Your task to perform on an android device: turn on notifications settings in the gmail app Image 0: 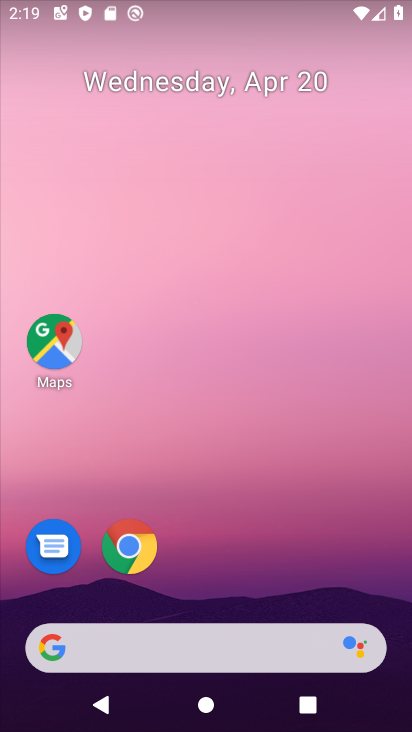
Step 0: drag from (259, 656) to (183, 150)
Your task to perform on an android device: turn on notifications settings in the gmail app Image 1: 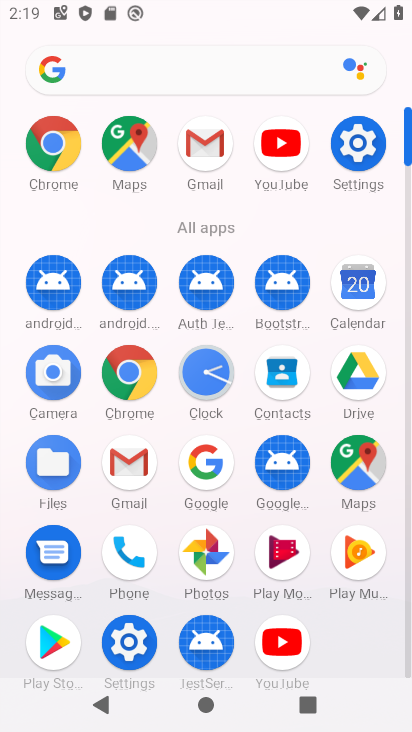
Step 1: click (130, 463)
Your task to perform on an android device: turn on notifications settings in the gmail app Image 2: 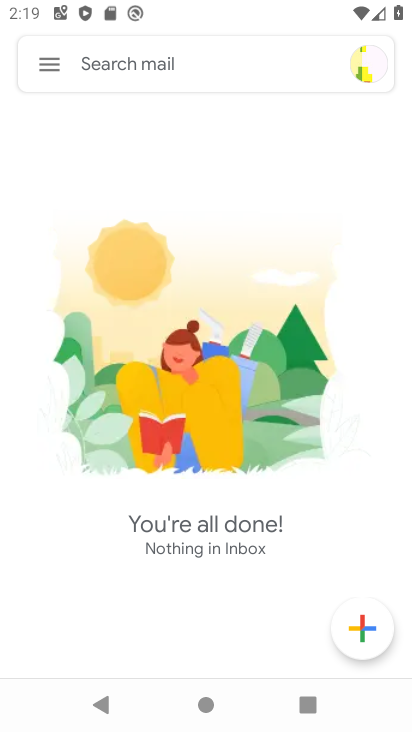
Step 2: click (53, 79)
Your task to perform on an android device: turn on notifications settings in the gmail app Image 3: 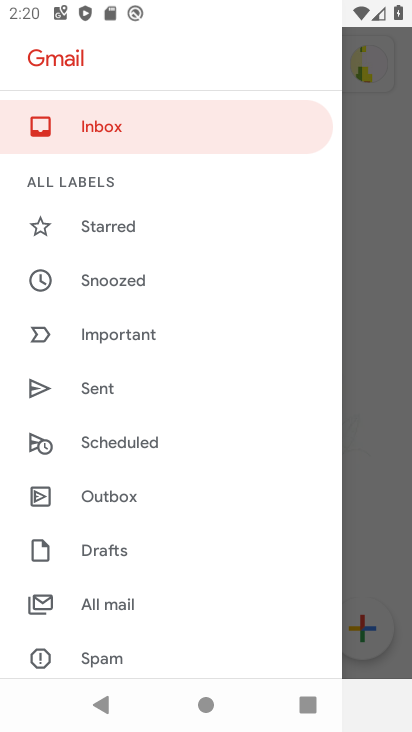
Step 3: drag from (121, 484) to (198, 165)
Your task to perform on an android device: turn on notifications settings in the gmail app Image 4: 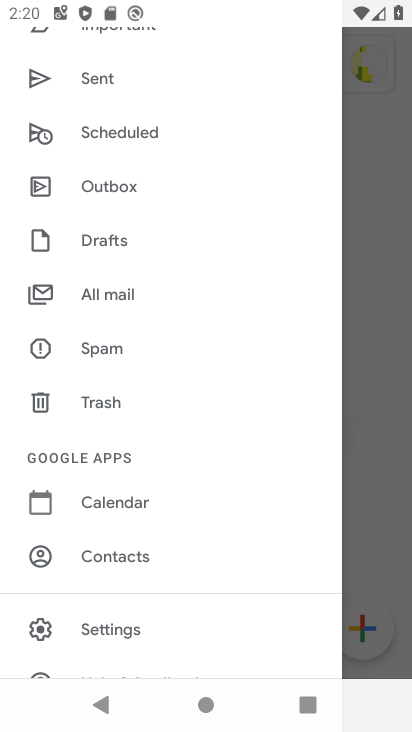
Step 4: click (107, 619)
Your task to perform on an android device: turn on notifications settings in the gmail app Image 5: 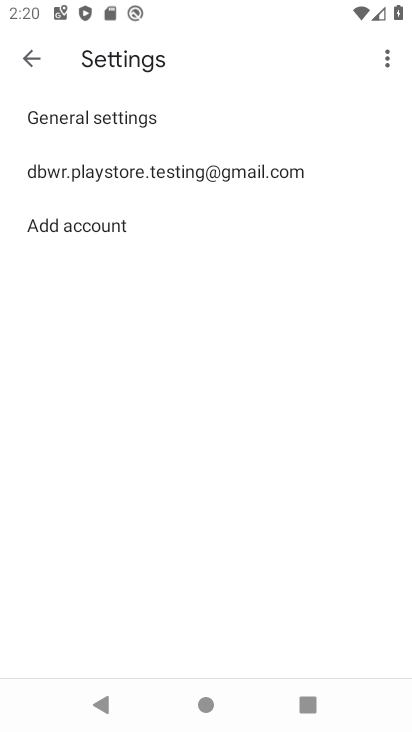
Step 5: click (145, 157)
Your task to perform on an android device: turn on notifications settings in the gmail app Image 6: 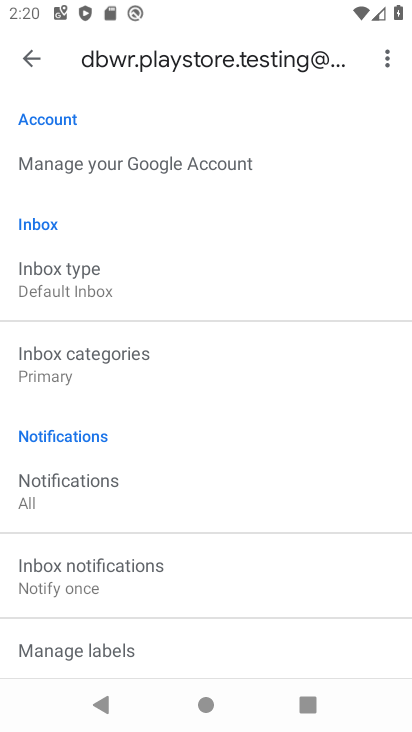
Step 6: click (99, 472)
Your task to perform on an android device: turn on notifications settings in the gmail app Image 7: 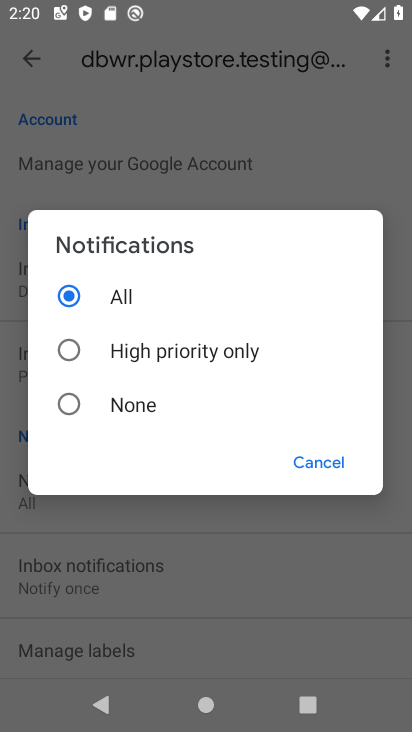
Step 7: task complete